Your task to perform on an android device: Open settings on Google Maps Image 0: 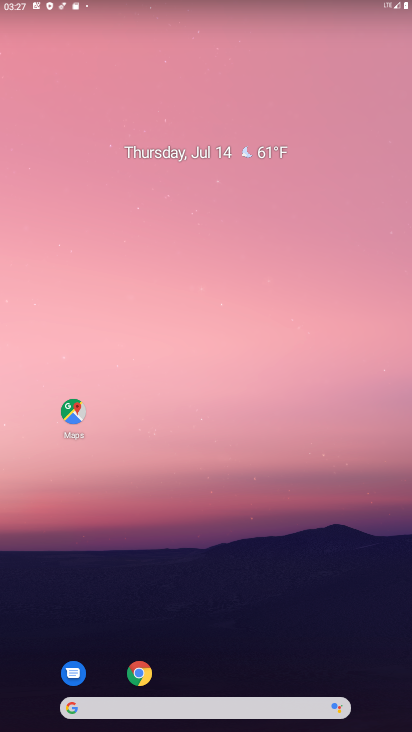
Step 0: click (78, 408)
Your task to perform on an android device: Open settings on Google Maps Image 1: 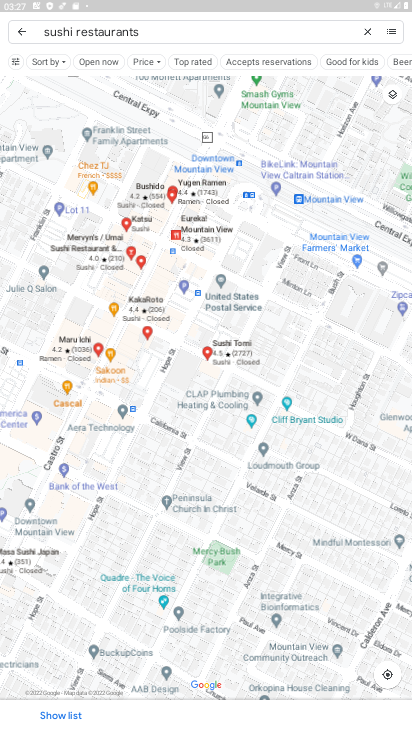
Step 1: click (22, 40)
Your task to perform on an android device: Open settings on Google Maps Image 2: 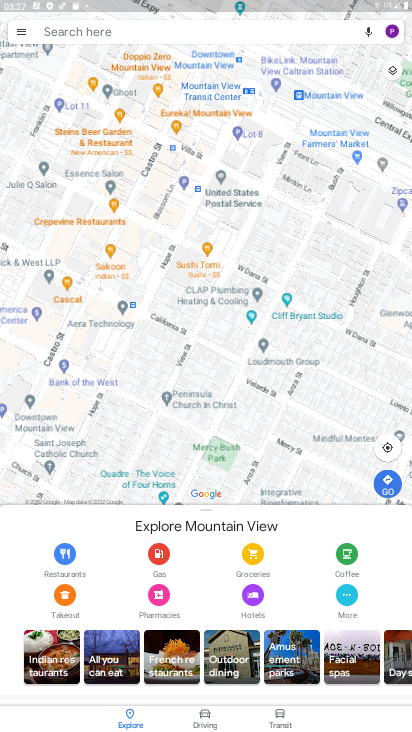
Step 2: click (13, 37)
Your task to perform on an android device: Open settings on Google Maps Image 3: 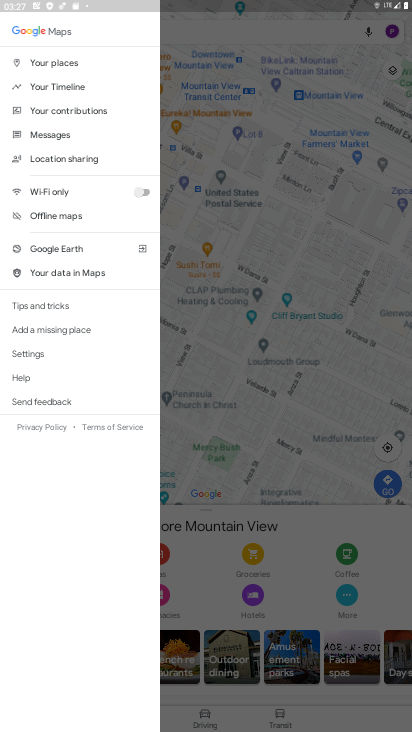
Step 3: click (79, 353)
Your task to perform on an android device: Open settings on Google Maps Image 4: 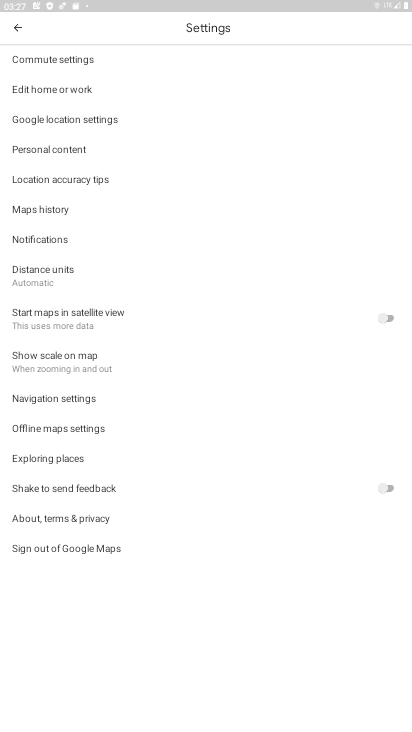
Step 4: task complete